Your task to perform on an android device: find which apps use the phone's location Image 0: 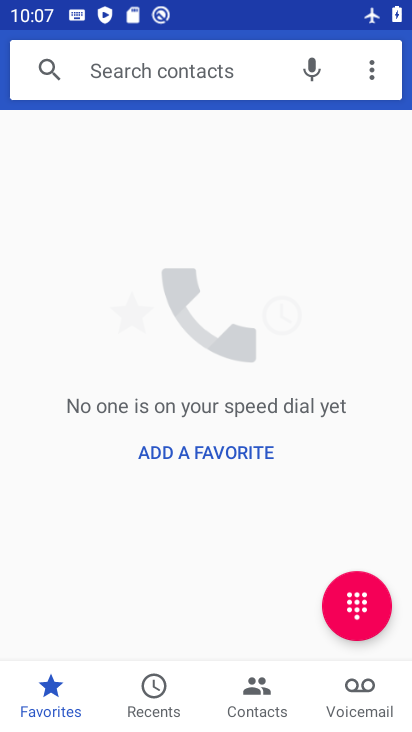
Step 0: press back button
Your task to perform on an android device: find which apps use the phone's location Image 1: 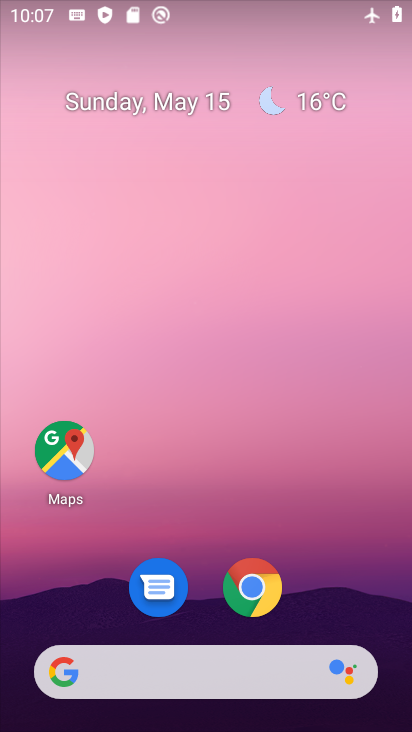
Step 1: drag from (316, 535) to (266, 0)
Your task to perform on an android device: find which apps use the phone's location Image 2: 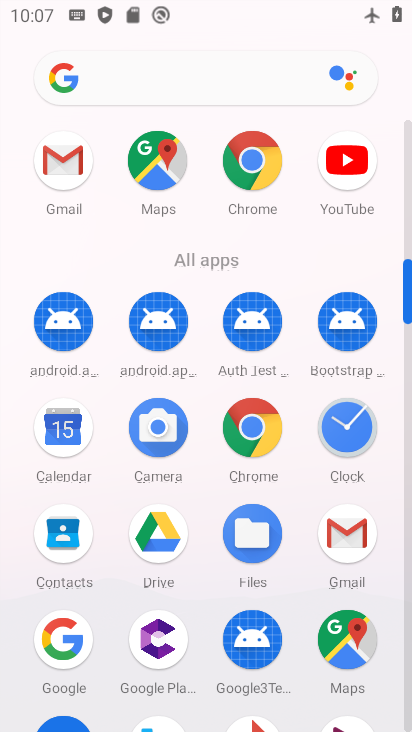
Step 2: drag from (20, 565) to (12, 273)
Your task to perform on an android device: find which apps use the phone's location Image 3: 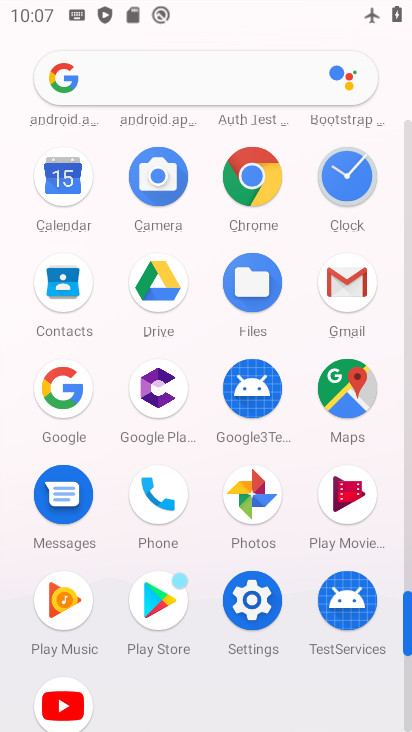
Step 3: drag from (18, 566) to (18, 265)
Your task to perform on an android device: find which apps use the phone's location Image 4: 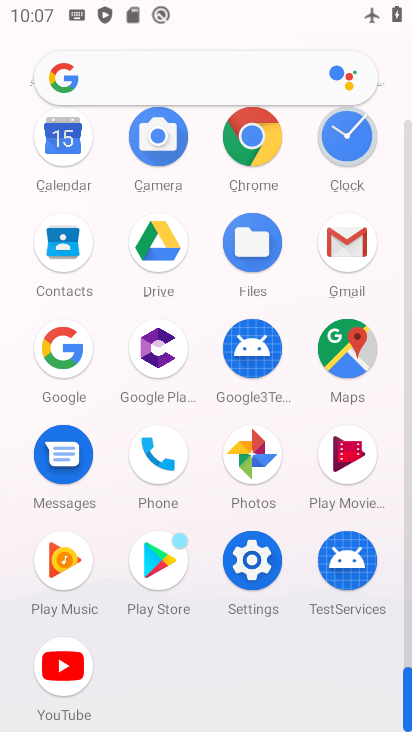
Step 4: click (252, 557)
Your task to perform on an android device: find which apps use the phone's location Image 5: 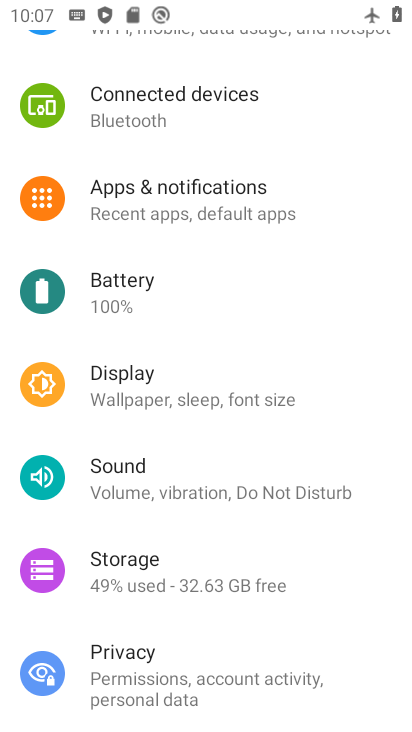
Step 5: drag from (277, 185) to (274, 540)
Your task to perform on an android device: find which apps use the phone's location Image 6: 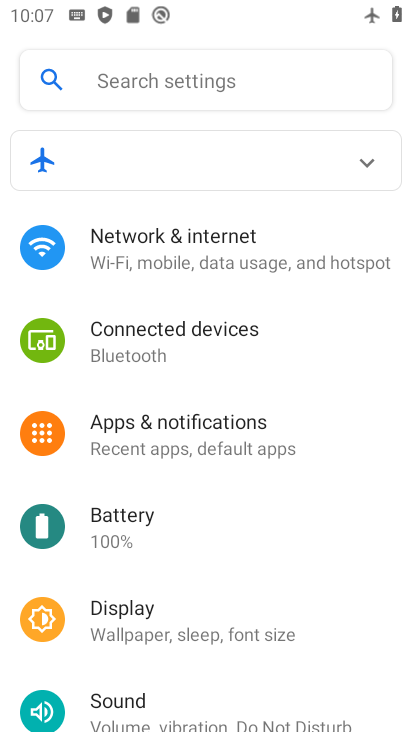
Step 6: drag from (267, 514) to (302, 177)
Your task to perform on an android device: find which apps use the phone's location Image 7: 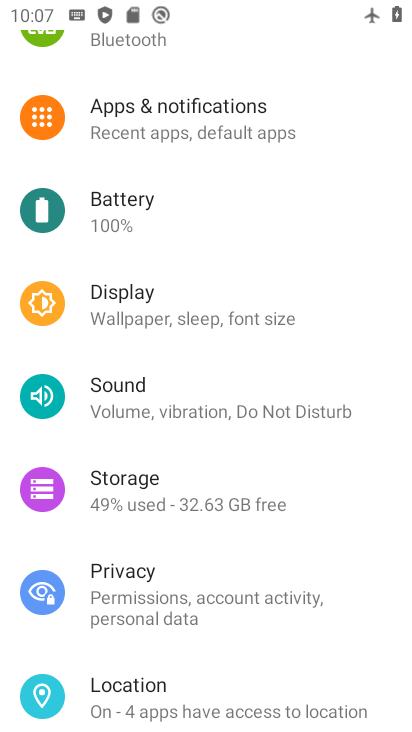
Step 7: drag from (268, 539) to (302, 149)
Your task to perform on an android device: find which apps use the phone's location Image 8: 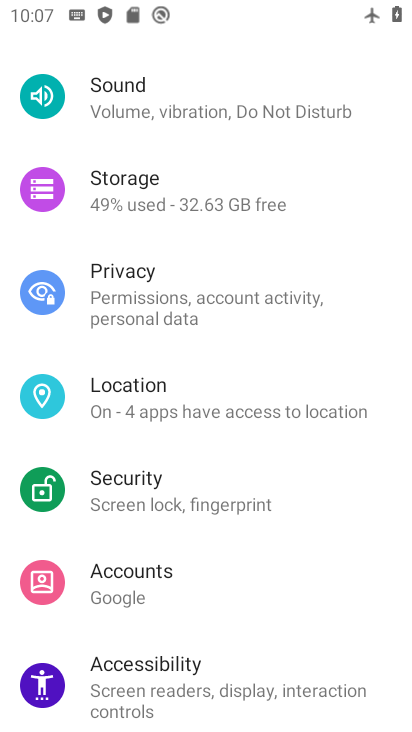
Step 8: click (239, 411)
Your task to perform on an android device: find which apps use the phone's location Image 9: 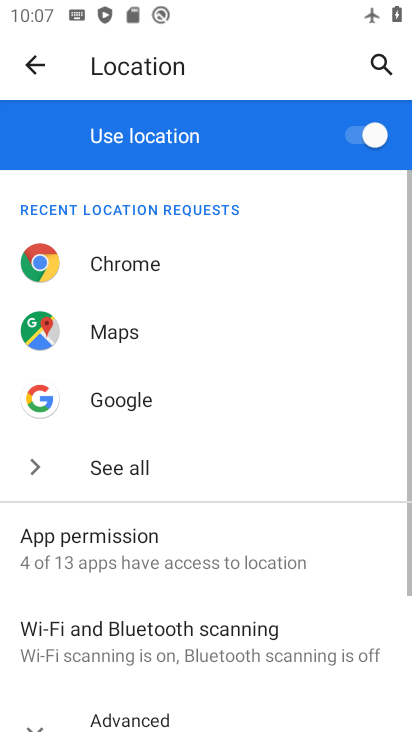
Step 9: click (167, 541)
Your task to perform on an android device: find which apps use the phone's location Image 10: 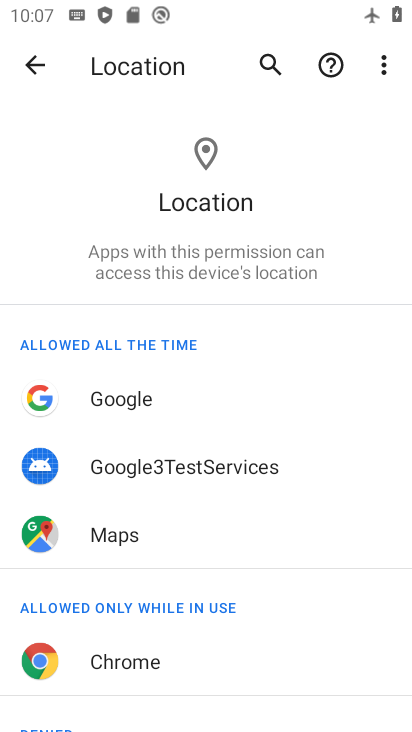
Step 10: task complete